Your task to perform on an android device: Go to internet settings Image 0: 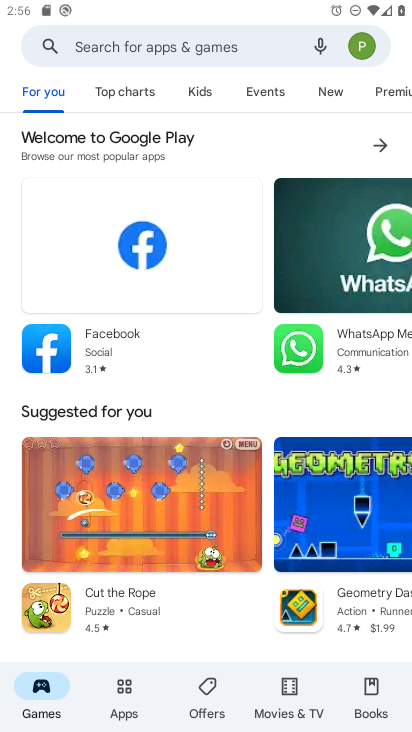
Step 0: press home button
Your task to perform on an android device: Go to internet settings Image 1: 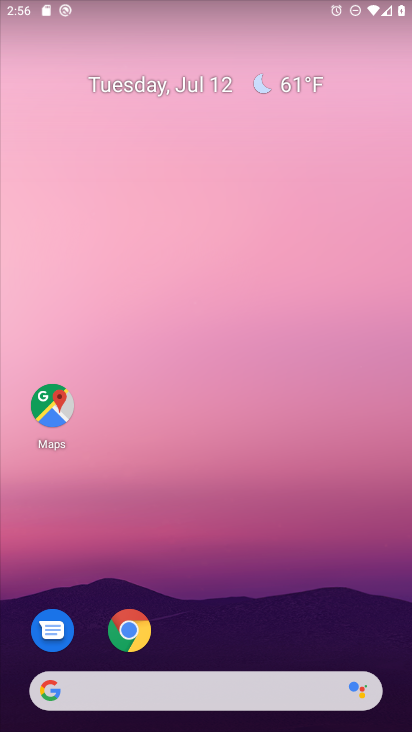
Step 1: drag from (187, 631) to (213, 167)
Your task to perform on an android device: Go to internet settings Image 2: 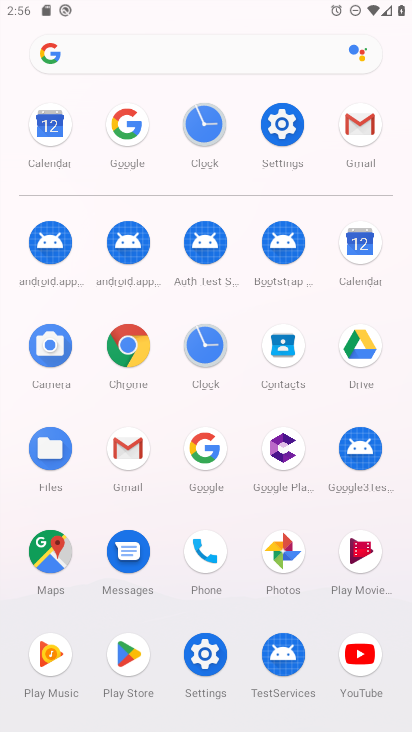
Step 2: click (278, 133)
Your task to perform on an android device: Go to internet settings Image 3: 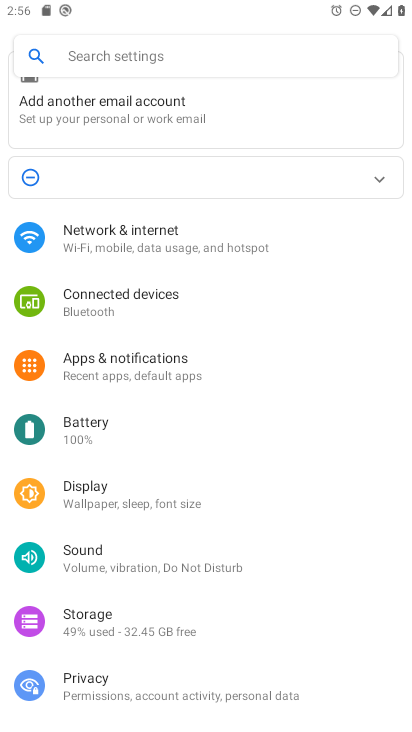
Step 3: click (182, 227)
Your task to perform on an android device: Go to internet settings Image 4: 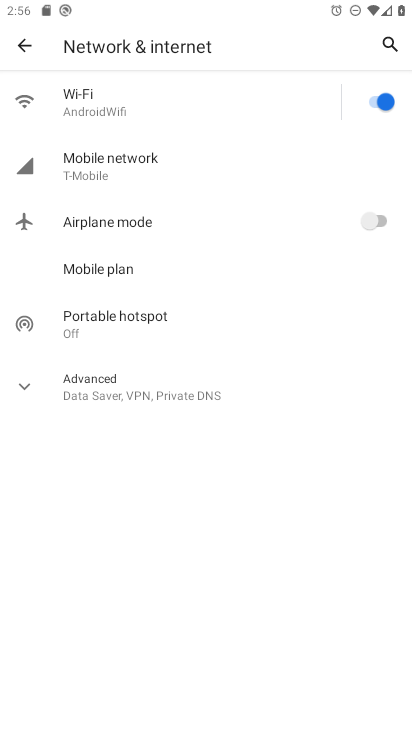
Step 4: task complete